Your task to perform on an android device: turn off location history Image 0: 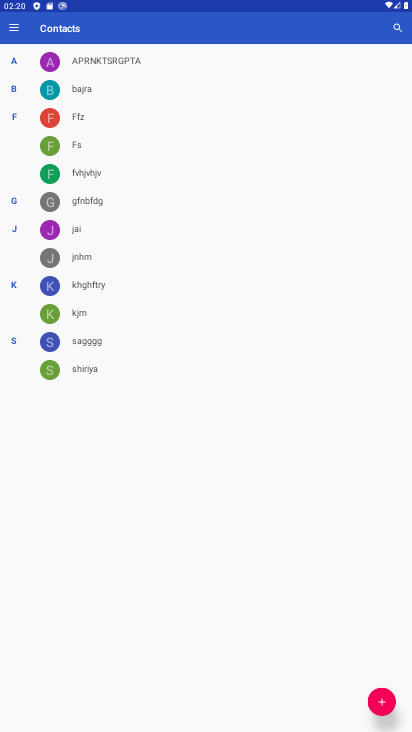
Step 0: press home button
Your task to perform on an android device: turn off location history Image 1: 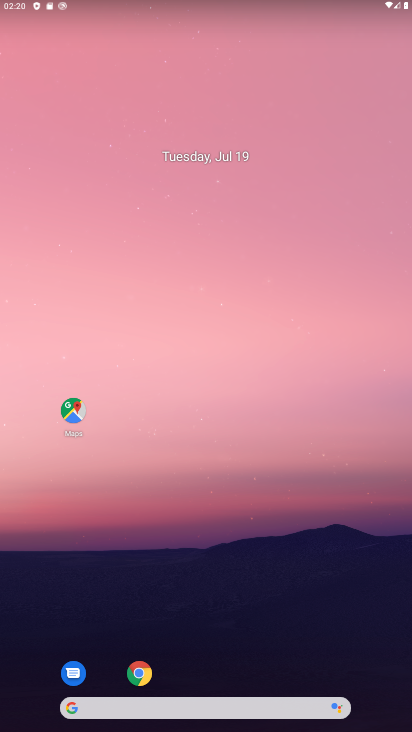
Step 1: drag from (200, 721) to (224, 208)
Your task to perform on an android device: turn off location history Image 2: 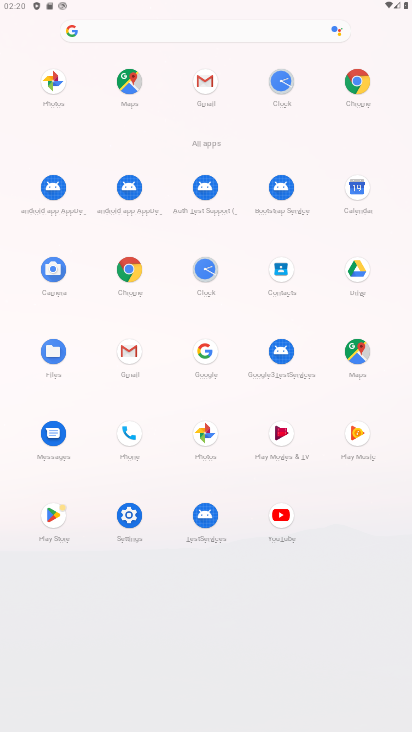
Step 2: click (135, 514)
Your task to perform on an android device: turn off location history Image 3: 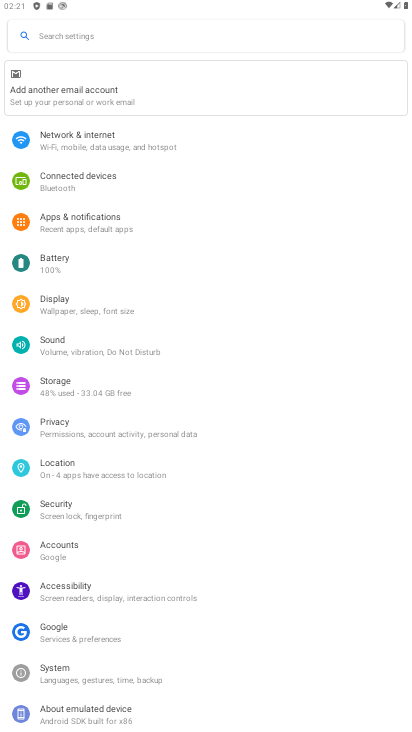
Step 3: click (147, 471)
Your task to perform on an android device: turn off location history Image 4: 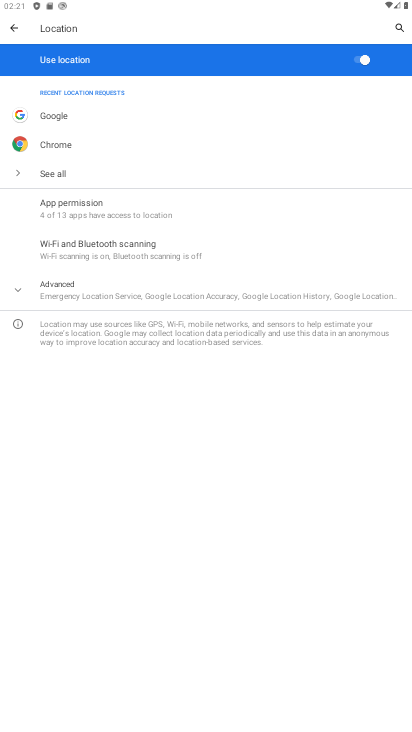
Step 4: click (114, 283)
Your task to perform on an android device: turn off location history Image 5: 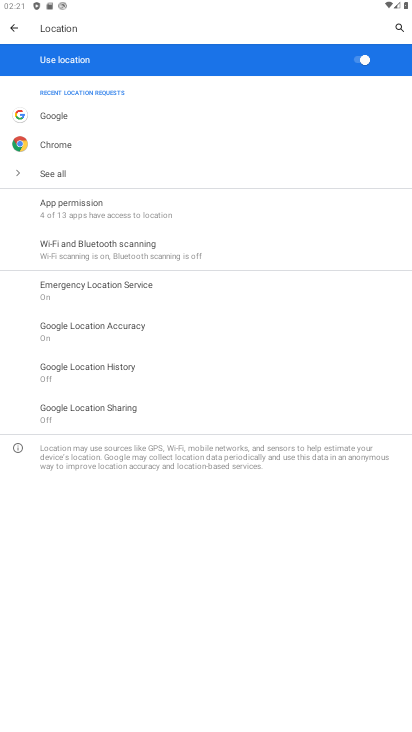
Step 5: click (143, 368)
Your task to perform on an android device: turn off location history Image 6: 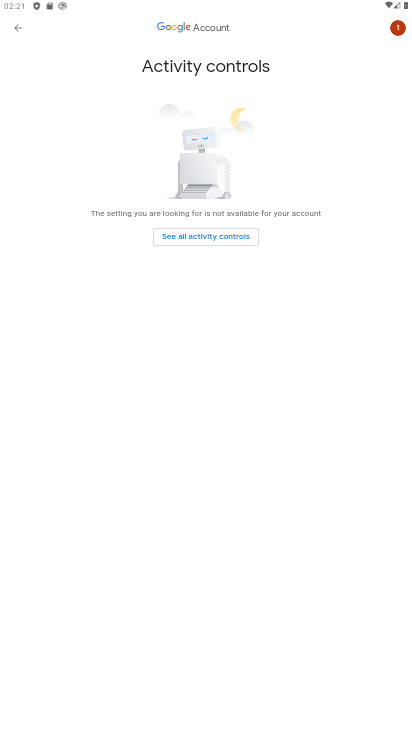
Step 6: task complete